Your task to perform on an android device: turn on the 12-hour format for clock Image 0: 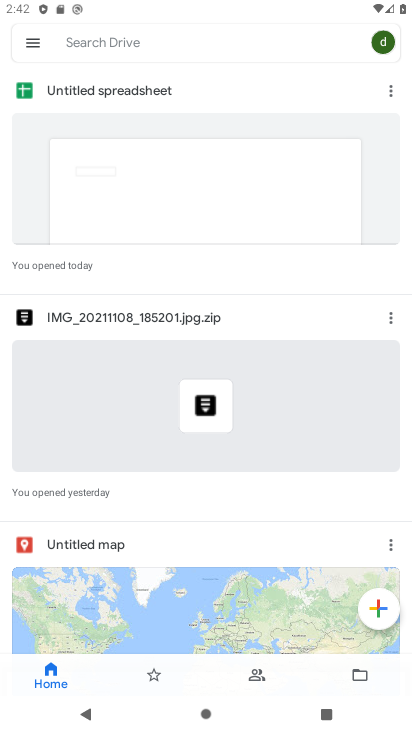
Step 0: press home button
Your task to perform on an android device: turn on the 12-hour format for clock Image 1: 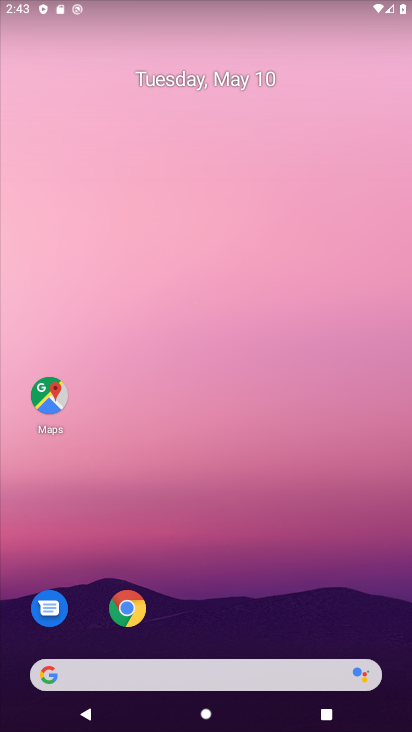
Step 1: drag from (368, 631) to (284, 7)
Your task to perform on an android device: turn on the 12-hour format for clock Image 2: 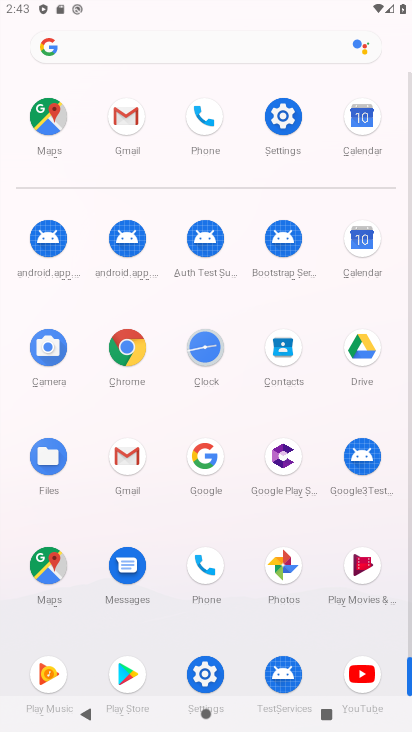
Step 2: click (204, 344)
Your task to perform on an android device: turn on the 12-hour format for clock Image 3: 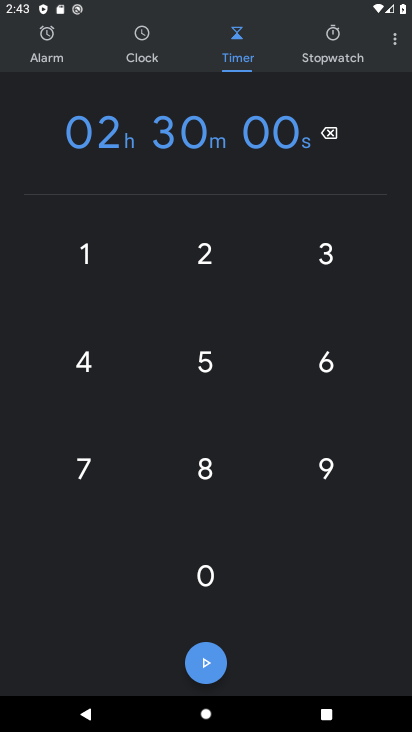
Step 3: click (394, 44)
Your task to perform on an android device: turn on the 12-hour format for clock Image 4: 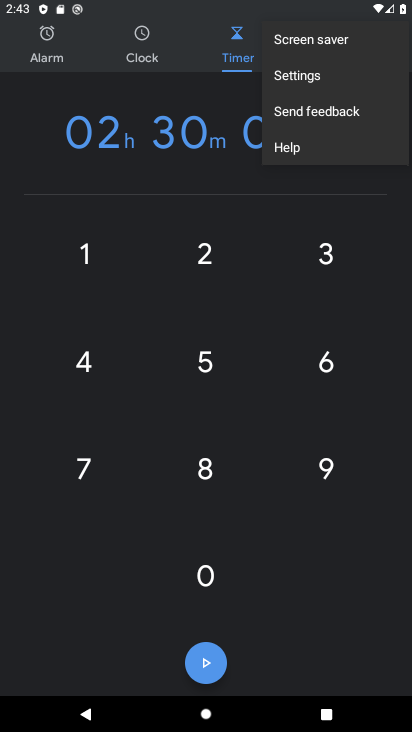
Step 4: click (304, 75)
Your task to perform on an android device: turn on the 12-hour format for clock Image 5: 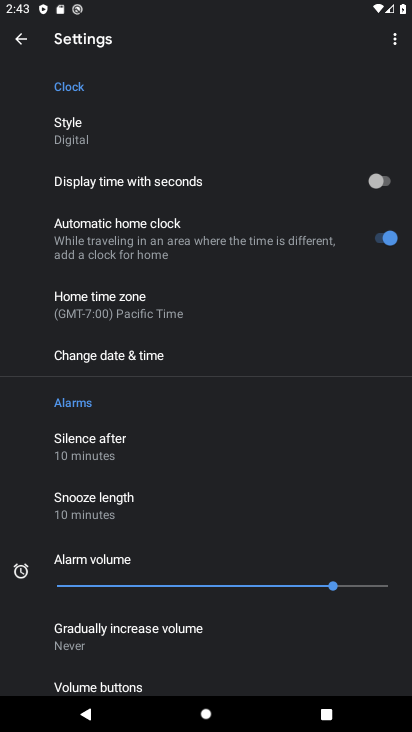
Step 5: click (122, 358)
Your task to perform on an android device: turn on the 12-hour format for clock Image 6: 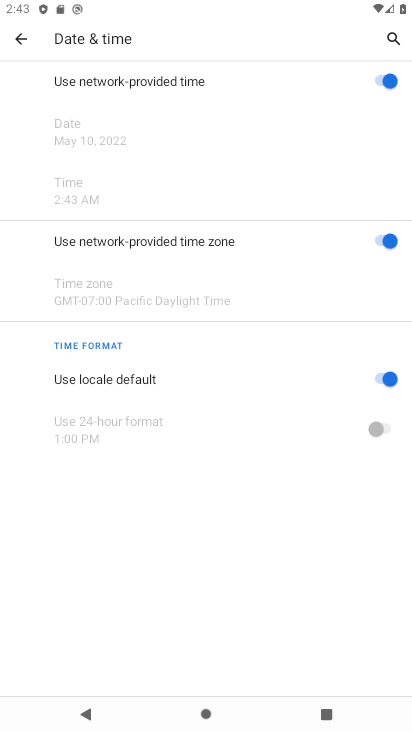
Step 6: task complete